Your task to perform on an android device: star an email in the gmail app Image 0: 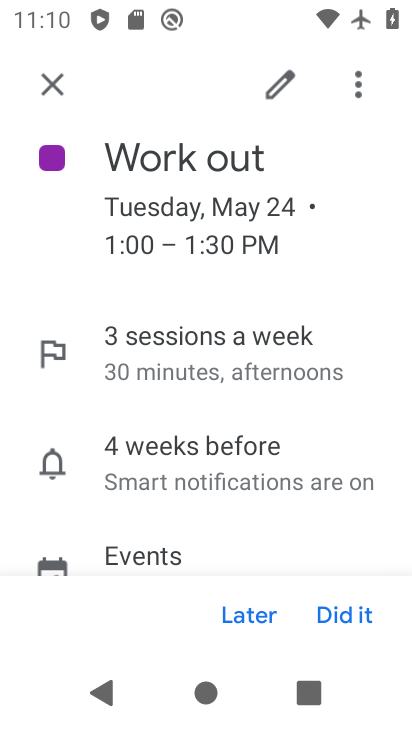
Step 0: press home button
Your task to perform on an android device: star an email in the gmail app Image 1: 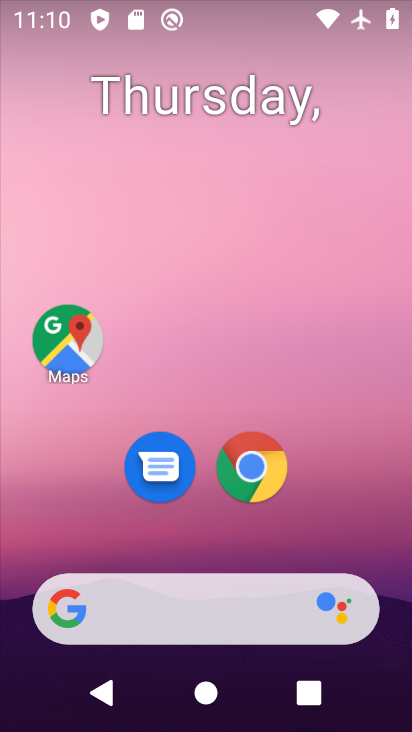
Step 1: drag from (359, 534) to (339, 10)
Your task to perform on an android device: star an email in the gmail app Image 2: 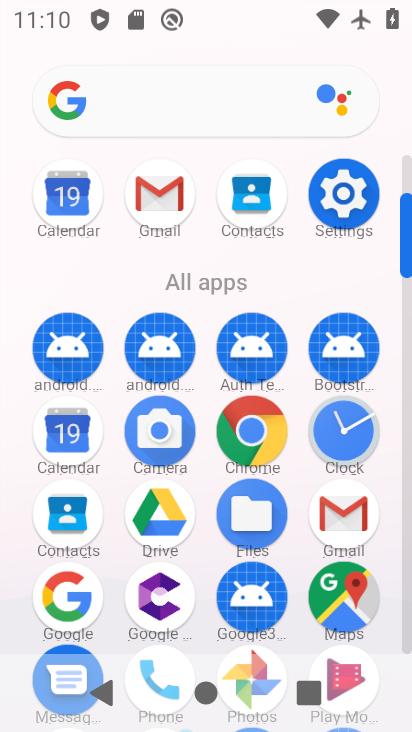
Step 2: click (153, 205)
Your task to perform on an android device: star an email in the gmail app Image 3: 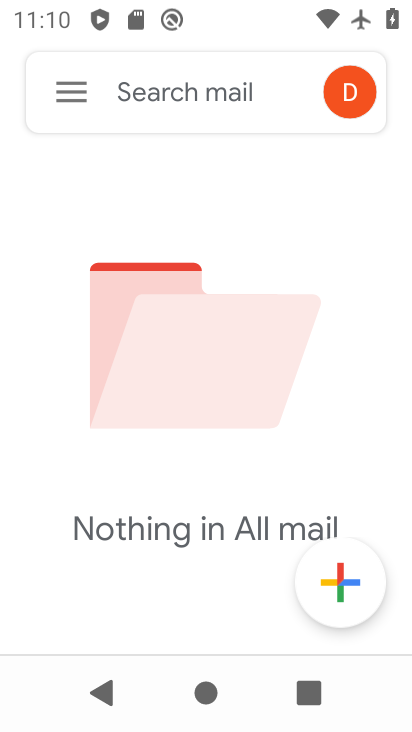
Step 3: task complete